Your task to perform on an android device: Turn on the flashlight Image 0: 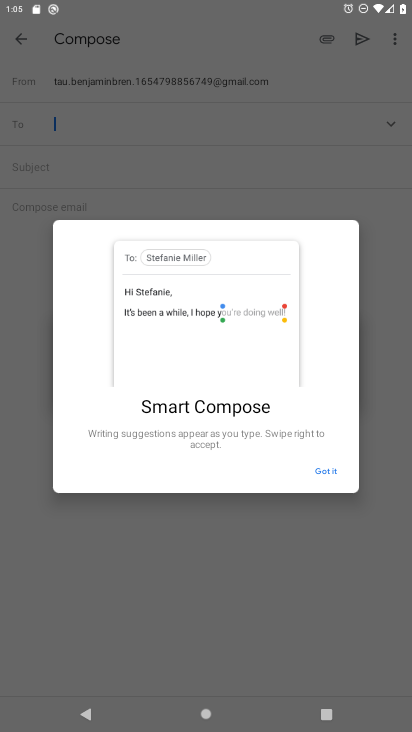
Step 0: press home button
Your task to perform on an android device: Turn on the flashlight Image 1: 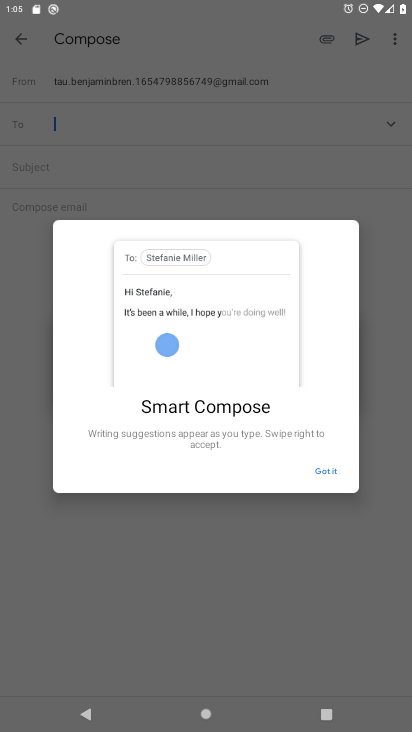
Step 1: click (153, 58)
Your task to perform on an android device: Turn on the flashlight Image 2: 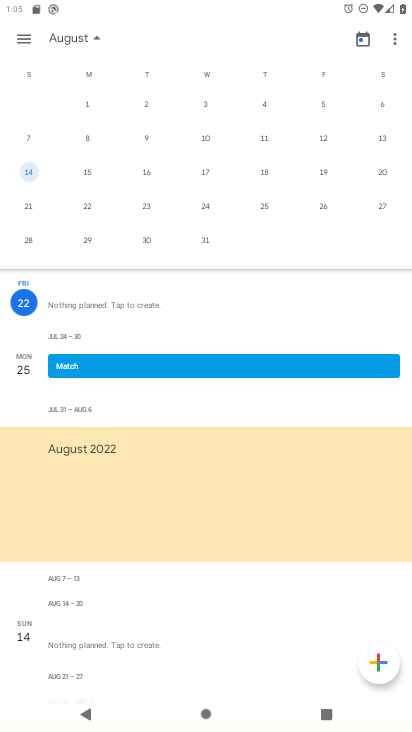
Step 2: drag from (368, 626) to (102, 15)
Your task to perform on an android device: Turn on the flashlight Image 3: 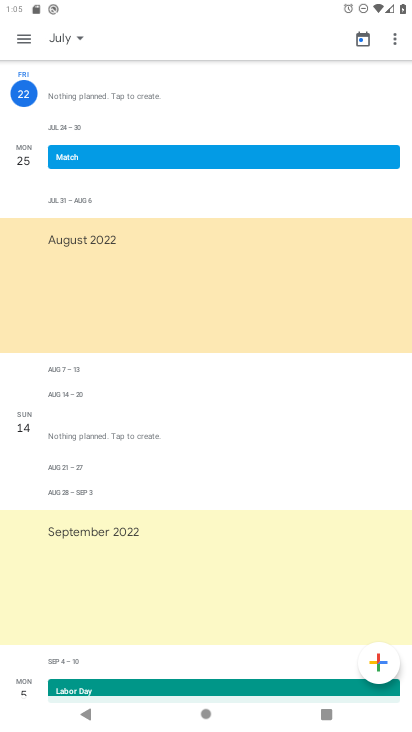
Step 3: press home button
Your task to perform on an android device: Turn on the flashlight Image 4: 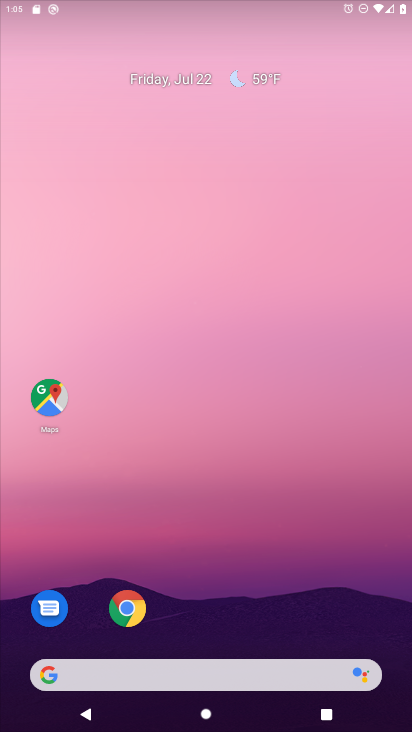
Step 4: drag from (340, 534) to (146, 69)
Your task to perform on an android device: Turn on the flashlight Image 5: 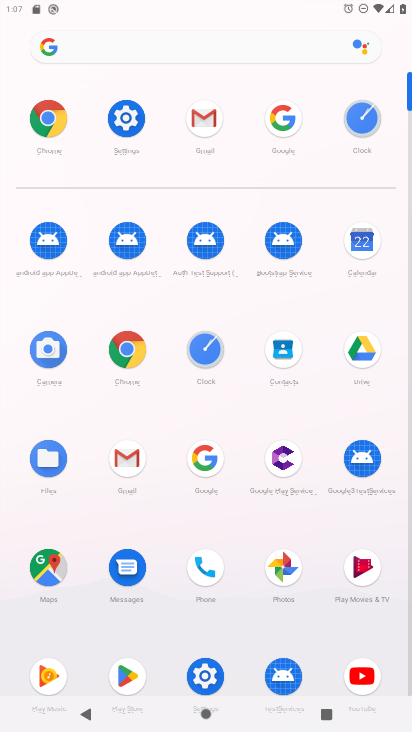
Step 5: click (111, 128)
Your task to perform on an android device: Turn on the flashlight Image 6: 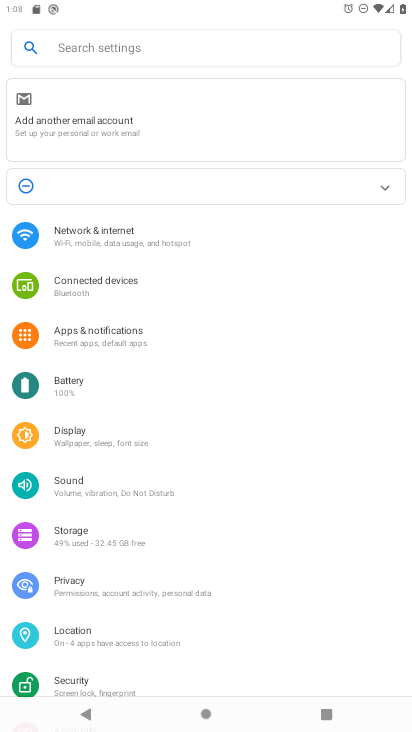
Step 6: task complete